Your task to perform on an android device: Open privacy settings Image 0: 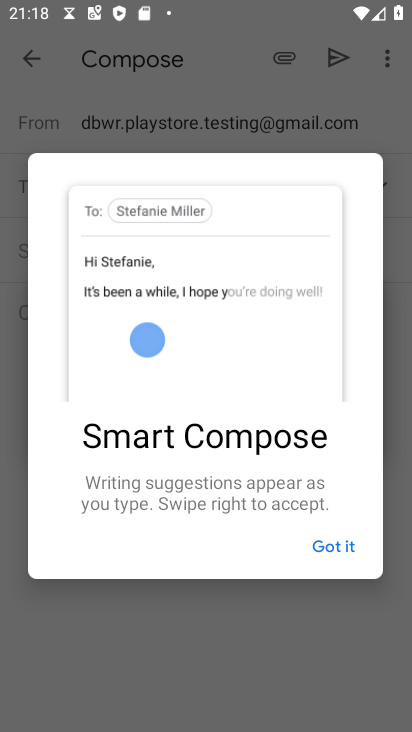
Step 0: press home button
Your task to perform on an android device: Open privacy settings Image 1: 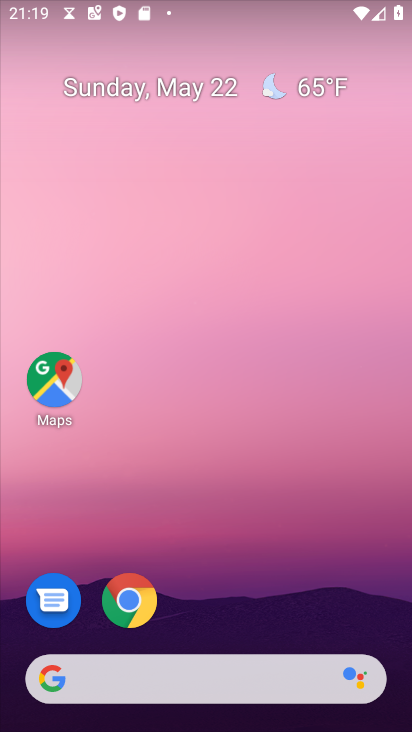
Step 1: drag from (267, 643) to (288, 36)
Your task to perform on an android device: Open privacy settings Image 2: 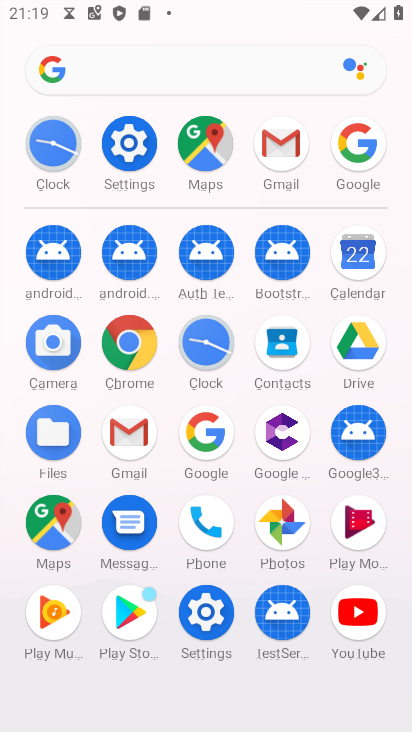
Step 2: click (108, 137)
Your task to perform on an android device: Open privacy settings Image 3: 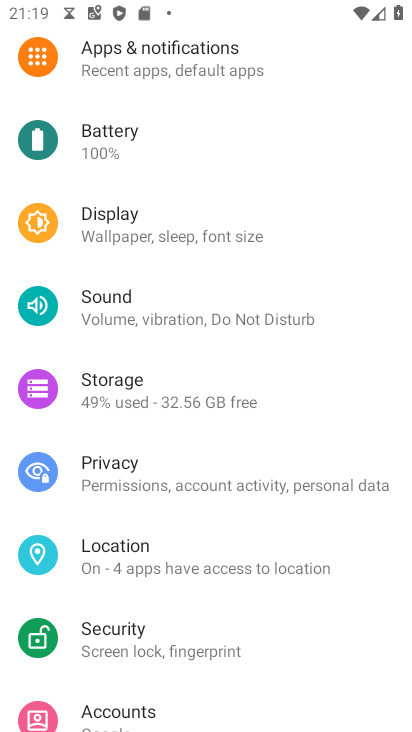
Step 3: click (134, 492)
Your task to perform on an android device: Open privacy settings Image 4: 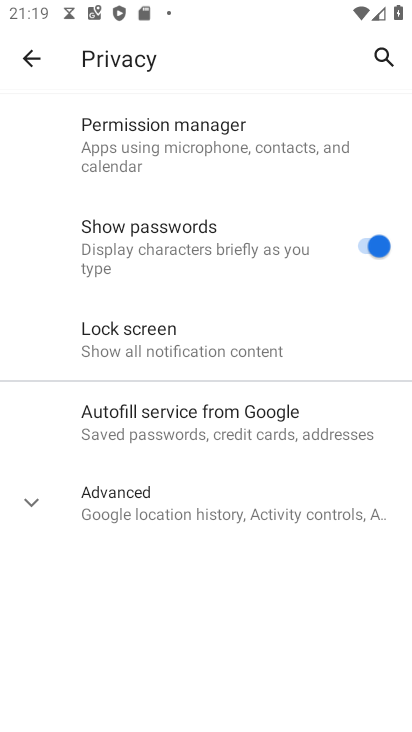
Step 4: task complete